Your task to perform on an android device: Go to accessibility settings Image 0: 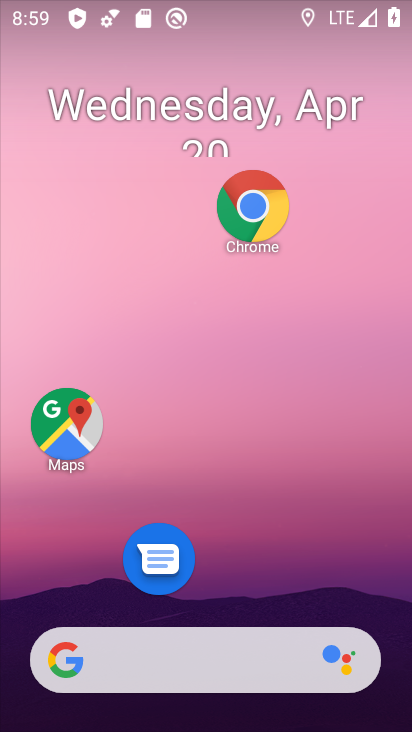
Step 0: drag from (298, 556) to (307, 163)
Your task to perform on an android device: Go to accessibility settings Image 1: 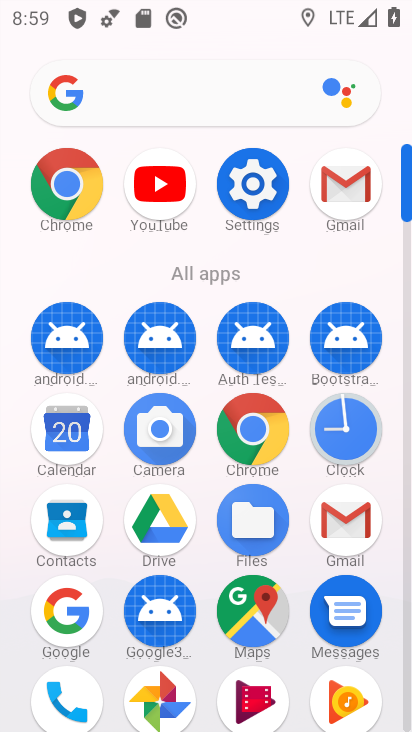
Step 1: click (253, 213)
Your task to perform on an android device: Go to accessibility settings Image 2: 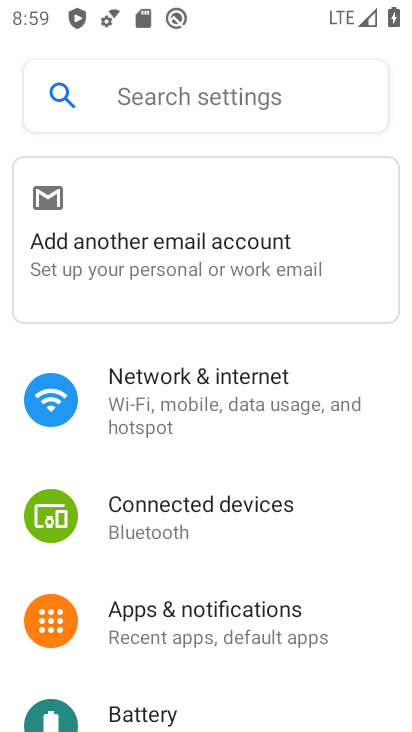
Step 2: drag from (314, 633) to (317, 233)
Your task to perform on an android device: Go to accessibility settings Image 3: 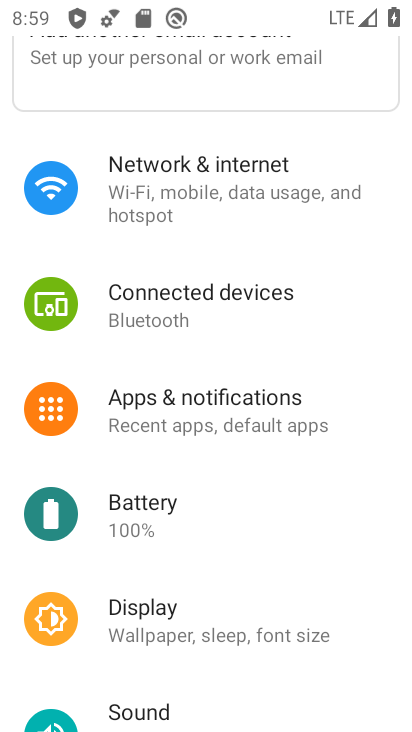
Step 3: drag from (291, 641) to (324, 254)
Your task to perform on an android device: Go to accessibility settings Image 4: 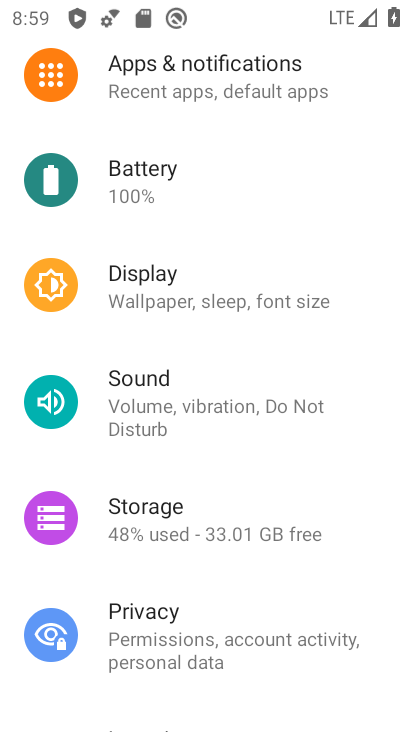
Step 4: drag from (268, 657) to (332, 182)
Your task to perform on an android device: Go to accessibility settings Image 5: 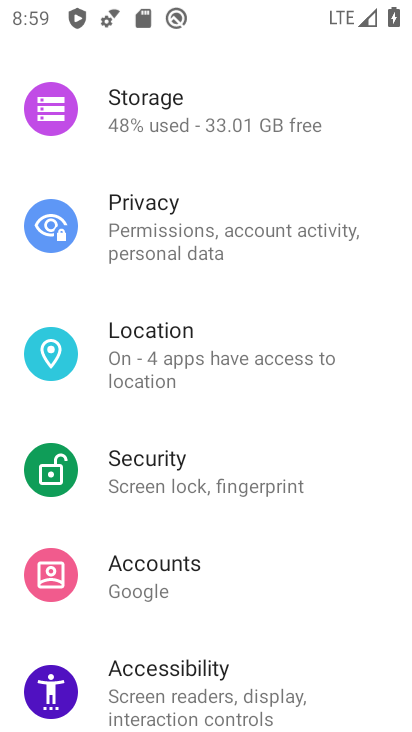
Step 5: click (221, 689)
Your task to perform on an android device: Go to accessibility settings Image 6: 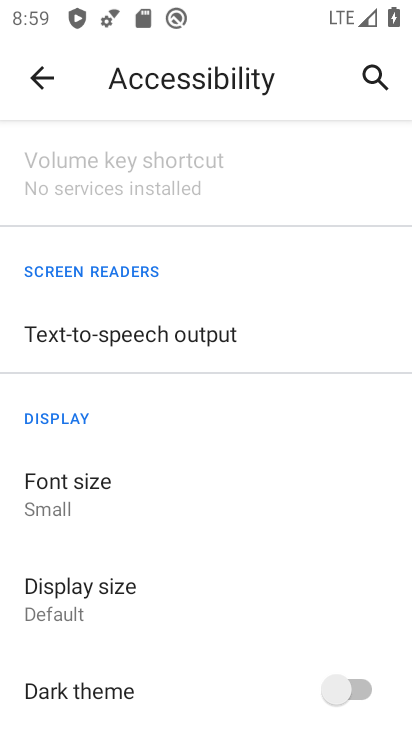
Step 6: task complete